Your task to perform on an android device: turn on location history Image 0: 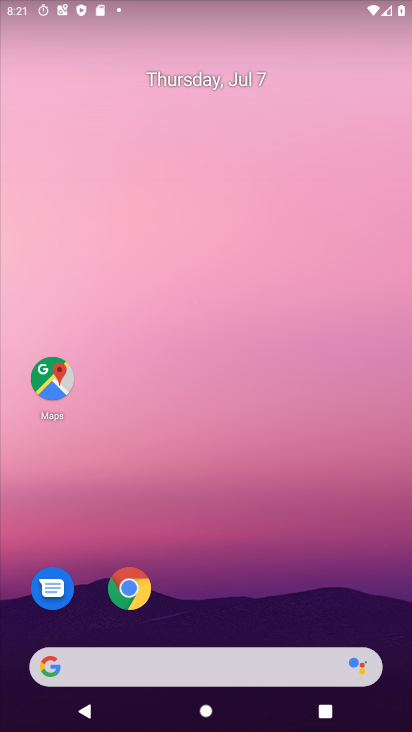
Step 0: drag from (159, 678) to (331, 136)
Your task to perform on an android device: turn on location history Image 1: 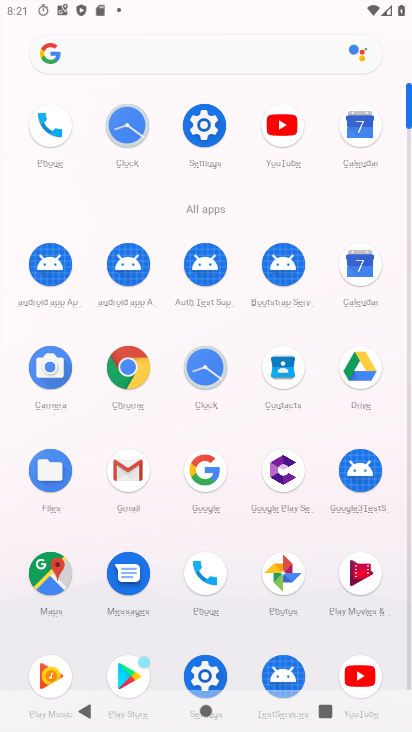
Step 1: click (215, 123)
Your task to perform on an android device: turn on location history Image 2: 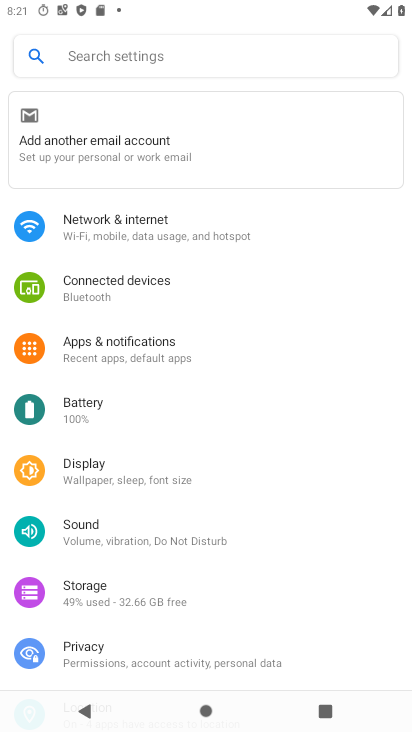
Step 2: drag from (207, 579) to (258, 170)
Your task to perform on an android device: turn on location history Image 3: 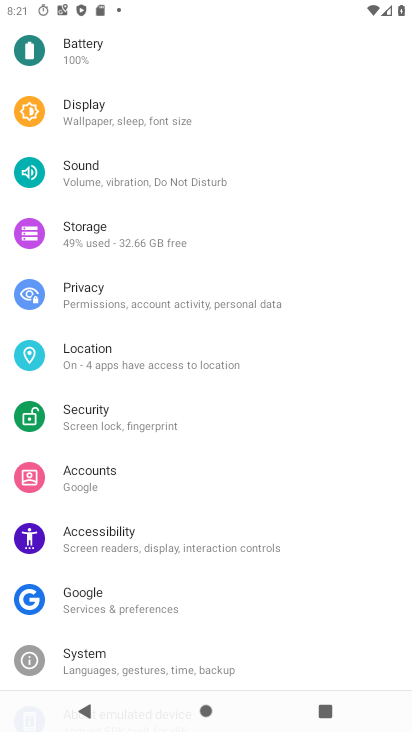
Step 3: click (105, 348)
Your task to perform on an android device: turn on location history Image 4: 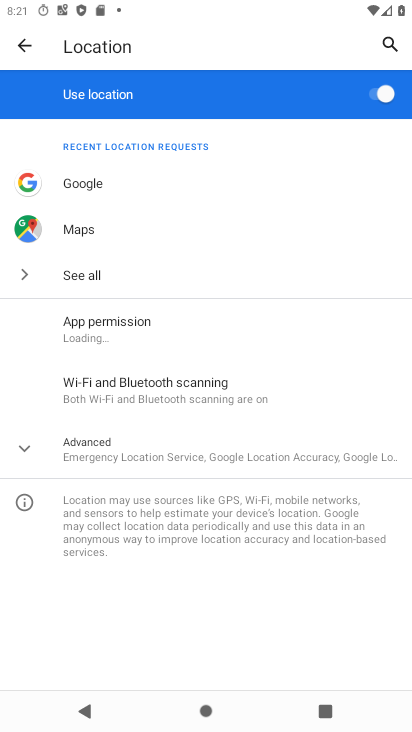
Step 4: click (122, 452)
Your task to perform on an android device: turn on location history Image 5: 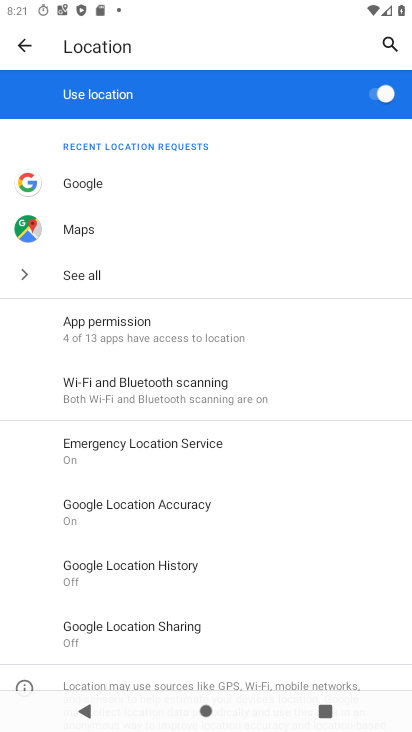
Step 5: click (129, 572)
Your task to perform on an android device: turn on location history Image 6: 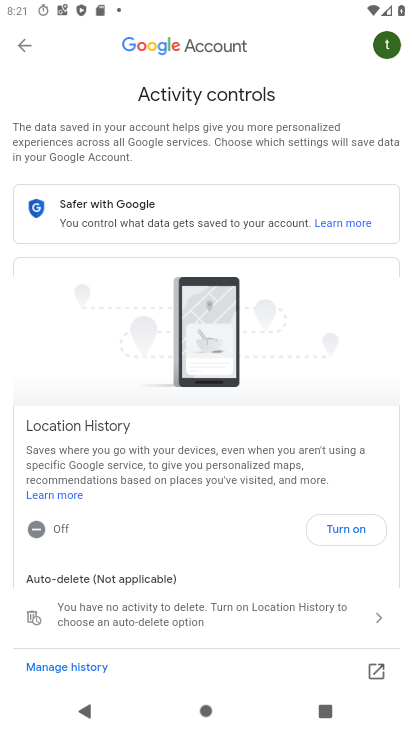
Step 6: click (343, 530)
Your task to perform on an android device: turn on location history Image 7: 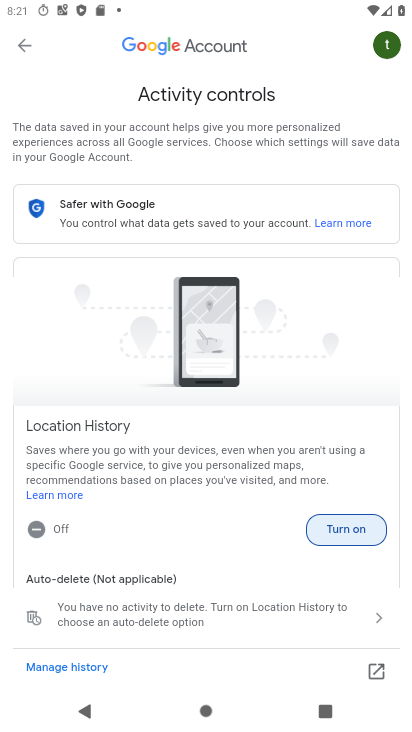
Step 7: click (349, 527)
Your task to perform on an android device: turn on location history Image 8: 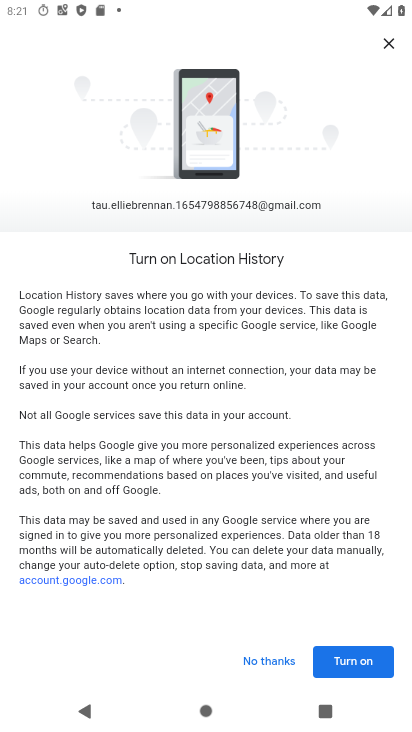
Step 8: click (357, 658)
Your task to perform on an android device: turn on location history Image 9: 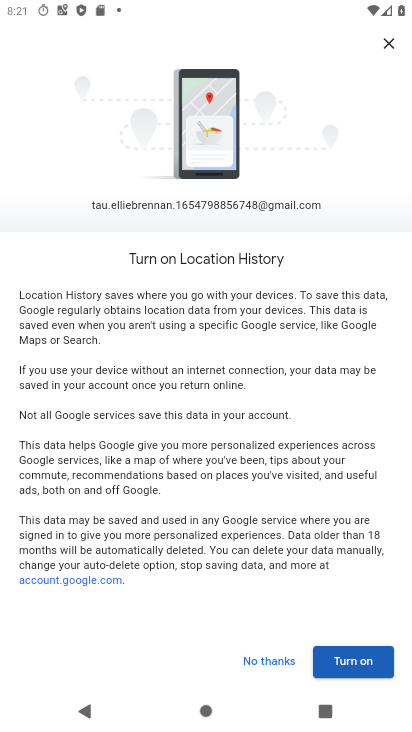
Step 9: click (356, 663)
Your task to perform on an android device: turn on location history Image 10: 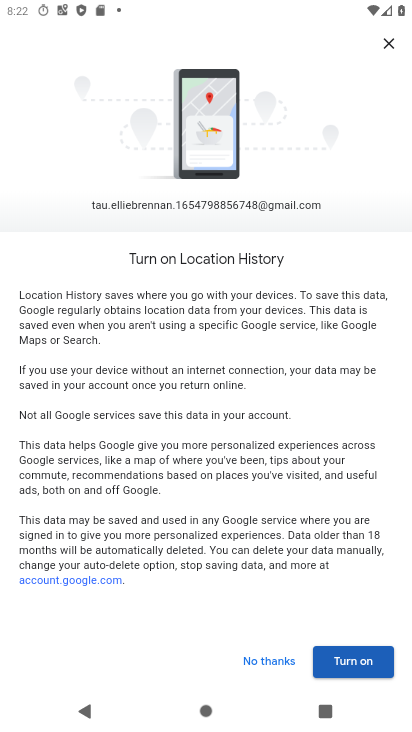
Step 10: click (349, 659)
Your task to perform on an android device: turn on location history Image 11: 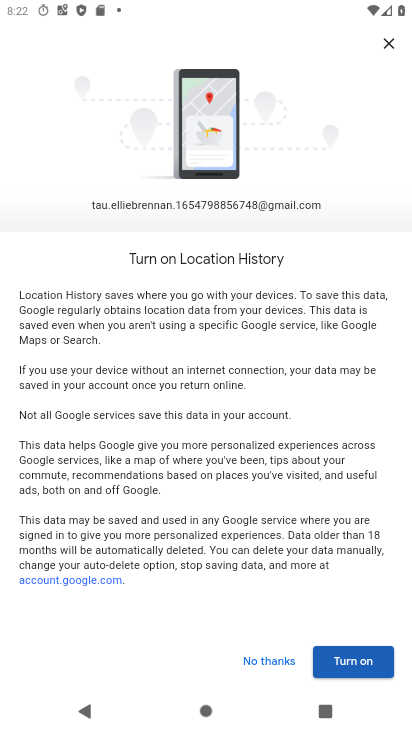
Step 11: click (360, 658)
Your task to perform on an android device: turn on location history Image 12: 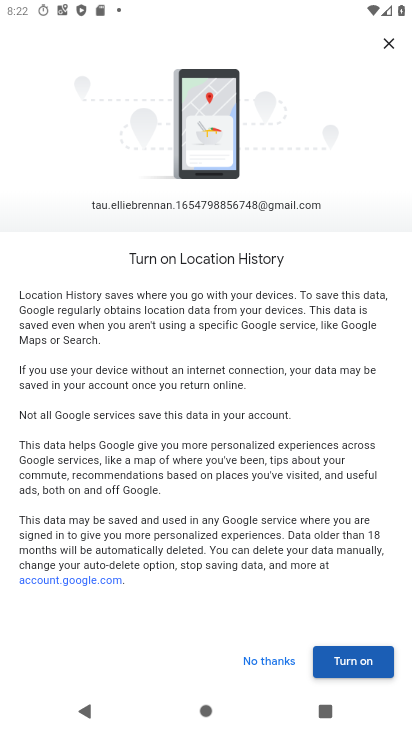
Step 12: click (353, 663)
Your task to perform on an android device: turn on location history Image 13: 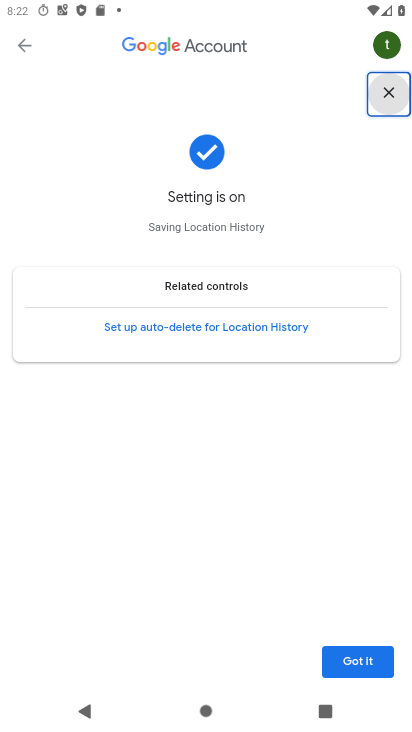
Step 13: click (362, 663)
Your task to perform on an android device: turn on location history Image 14: 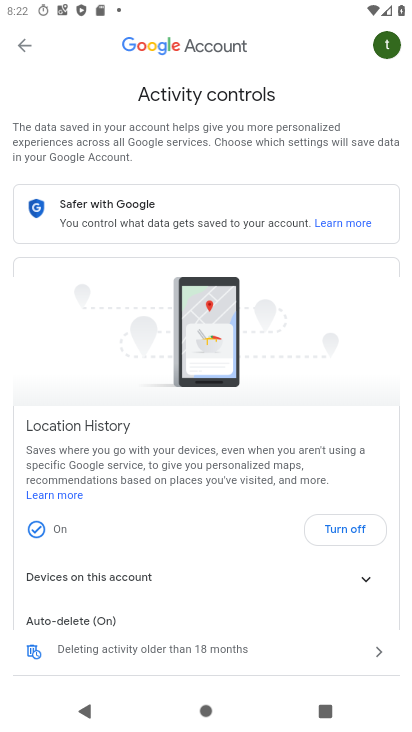
Step 14: task complete